Your task to perform on an android device: Go to location settings Image 0: 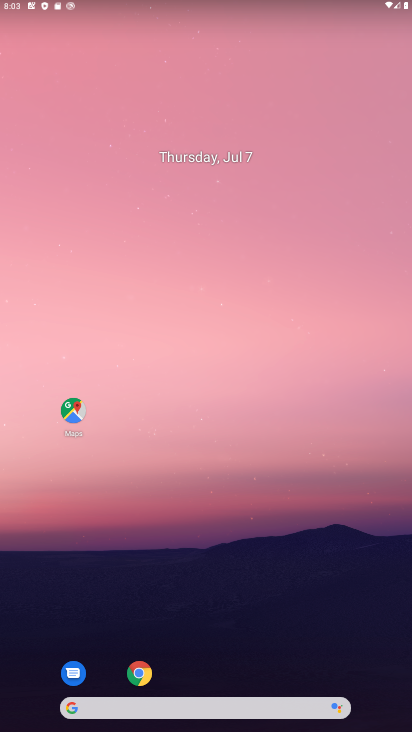
Step 0: drag from (255, 637) to (238, 0)
Your task to perform on an android device: Go to location settings Image 1: 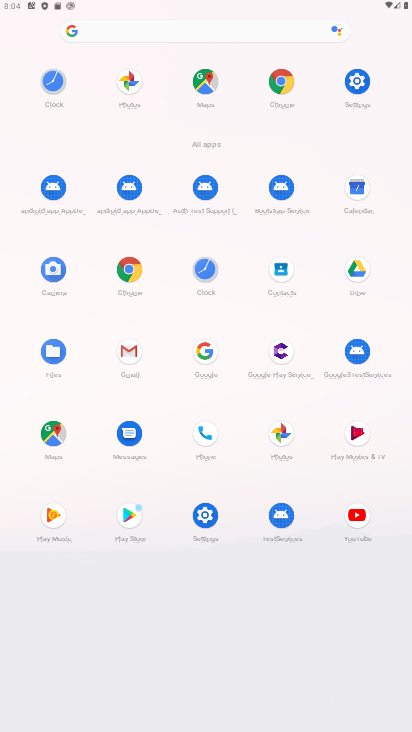
Step 1: click (355, 79)
Your task to perform on an android device: Go to location settings Image 2: 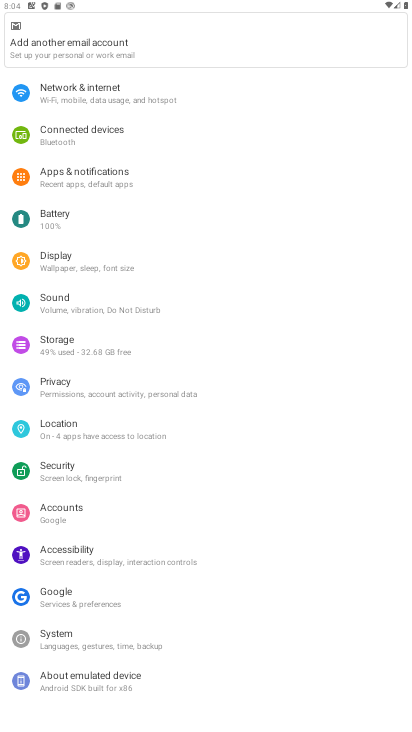
Step 2: click (53, 429)
Your task to perform on an android device: Go to location settings Image 3: 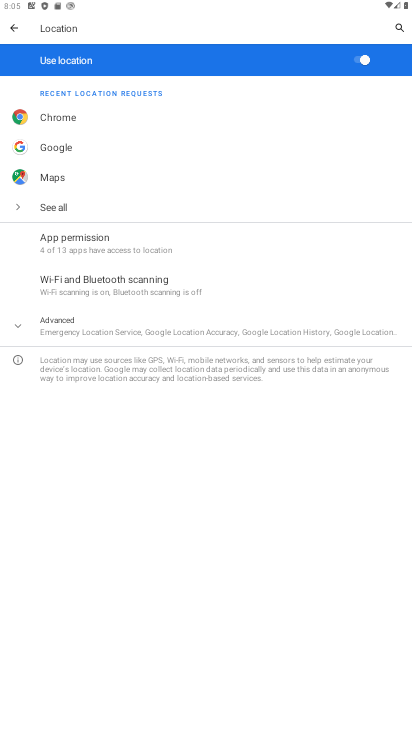
Step 3: task complete